Your task to perform on an android device: turn vacation reply on in the gmail app Image 0: 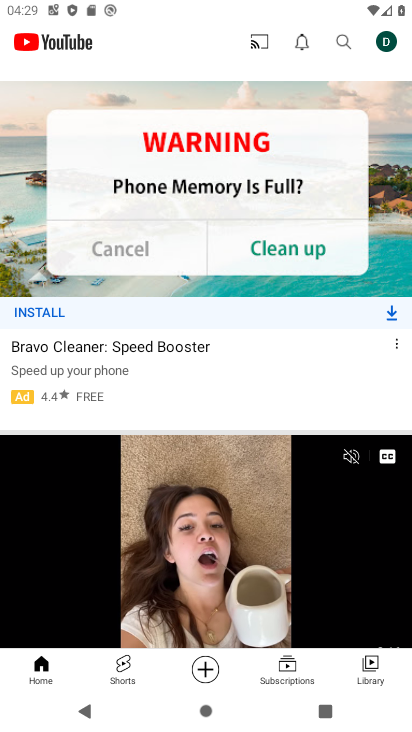
Step 0: press home button
Your task to perform on an android device: turn vacation reply on in the gmail app Image 1: 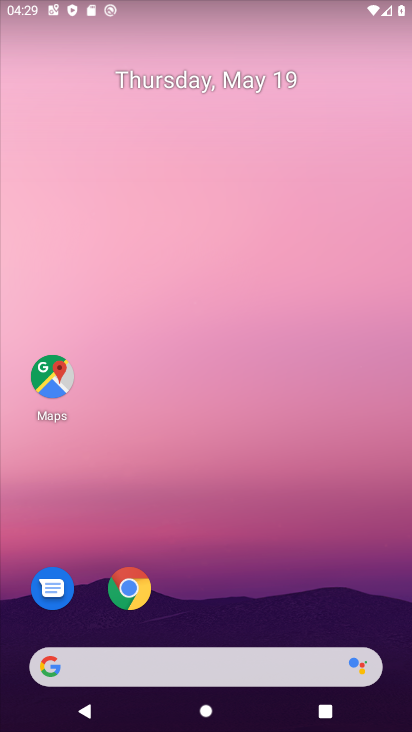
Step 1: drag from (216, 606) to (261, 257)
Your task to perform on an android device: turn vacation reply on in the gmail app Image 2: 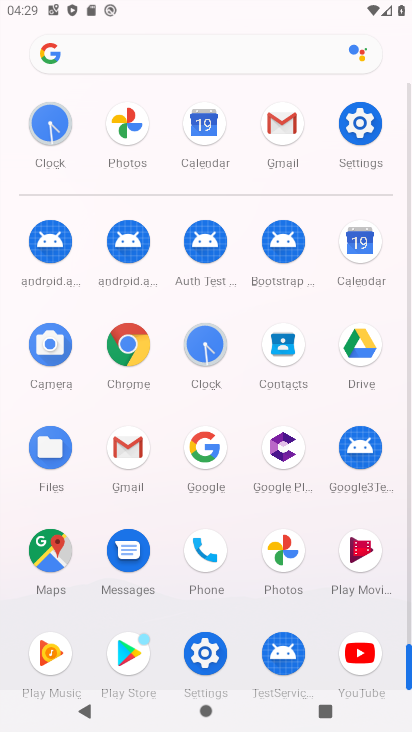
Step 2: click (128, 463)
Your task to perform on an android device: turn vacation reply on in the gmail app Image 3: 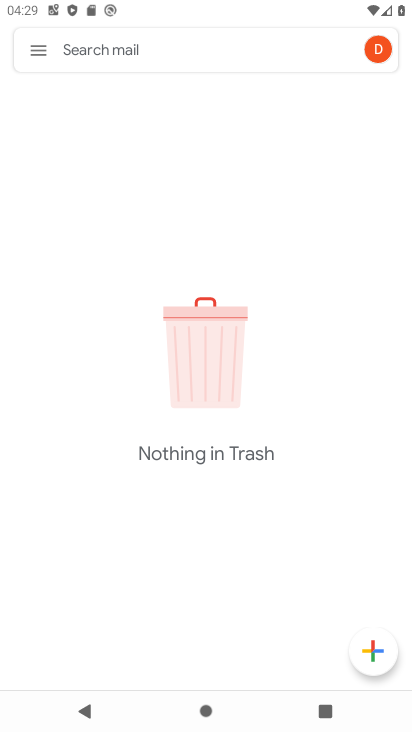
Step 3: click (32, 52)
Your task to perform on an android device: turn vacation reply on in the gmail app Image 4: 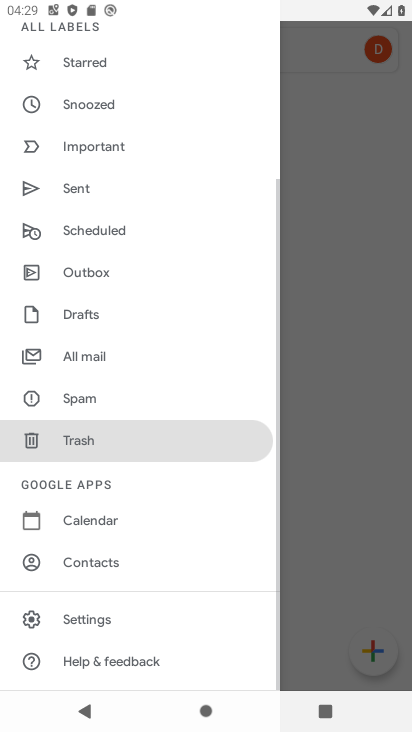
Step 4: click (86, 614)
Your task to perform on an android device: turn vacation reply on in the gmail app Image 5: 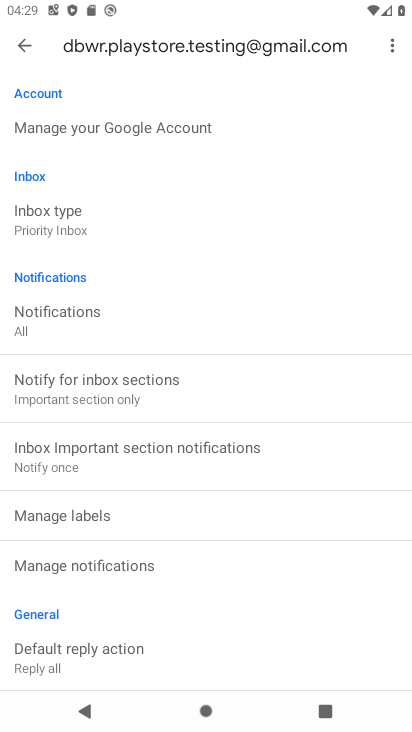
Step 5: drag from (100, 599) to (132, 408)
Your task to perform on an android device: turn vacation reply on in the gmail app Image 6: 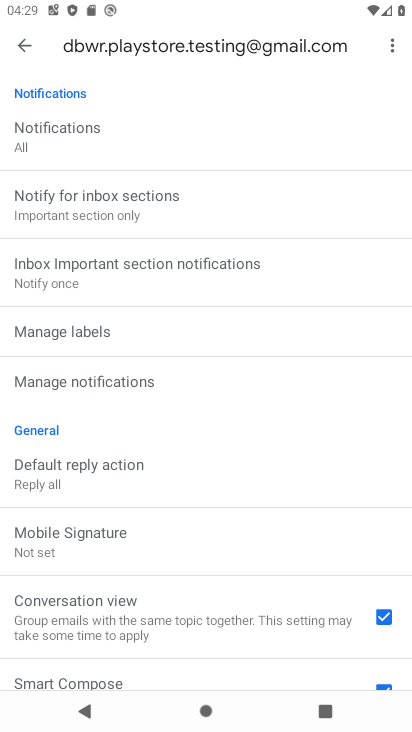
Step 6: drag from (94, 592) to (156, 221)
Your task to perform on an android device: turn vacation reply on in the gmail app Image 7: 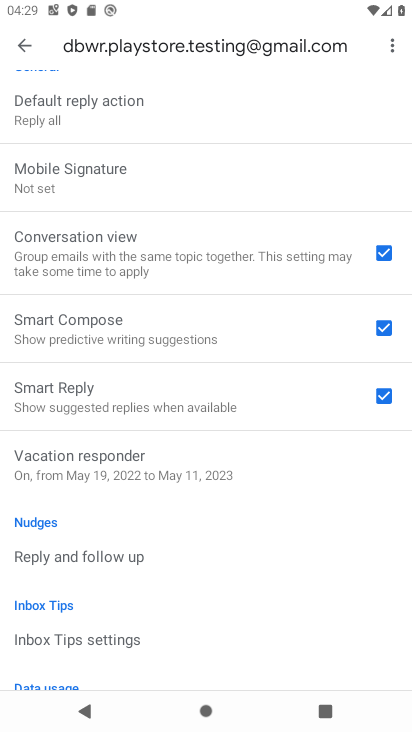
Step 7: click (137, 476)
Your task to perform on an android device: turn vacation reply on in the gmail app Image 8: 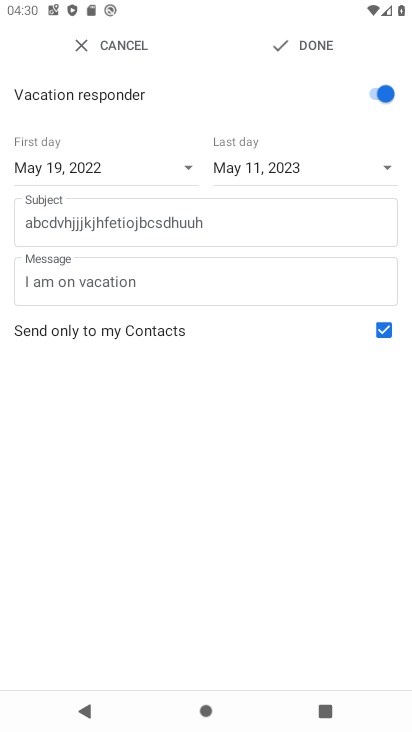
Step 8: task complete